Your task to perform on an android device: Open Yahoo.com Image 0: 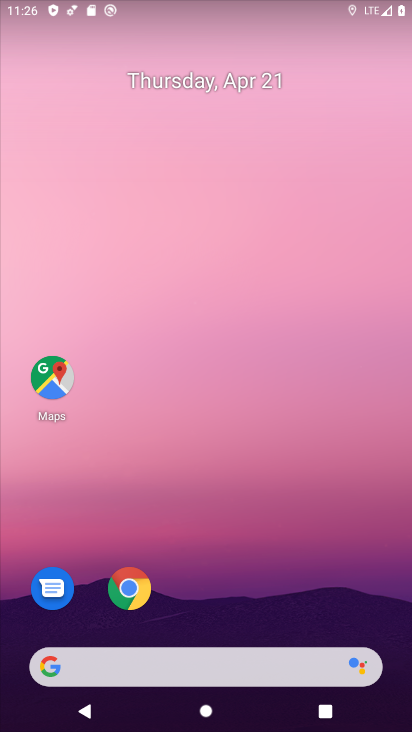
Step 0: drag from (274, 652) to (291, 144)
Your task to perform on an android device: Open Yahoo.com Image 1: 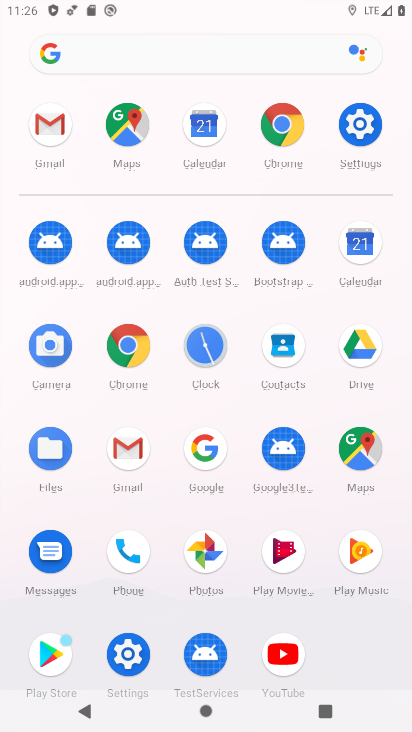
Step 1: click (289, 138)
Your task to perform on an android device: Open Yahoo.com Image 2: 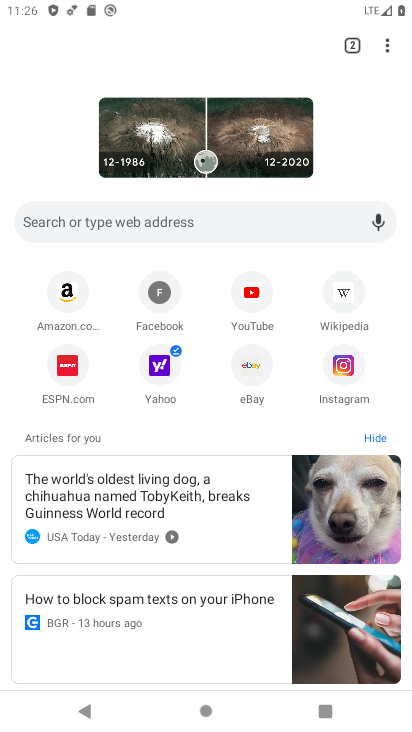
Step 2: click (166, 370)
Your task to perform on an android device: Open Yahoo.com Image 3: 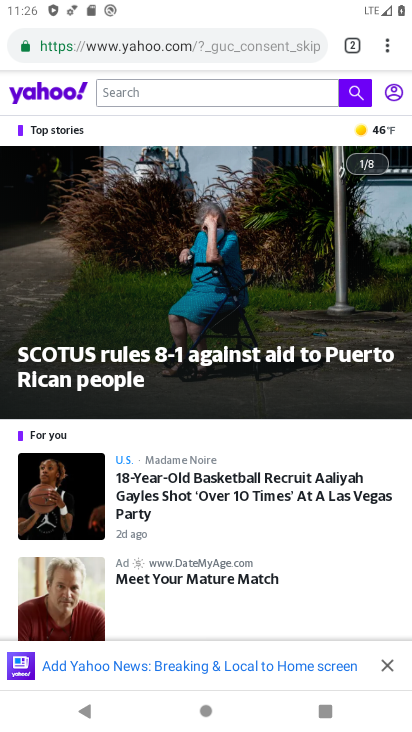
Step 3: task complete